Your task to perform on an android device: turn on priority inbox in the gmail app Image 0: 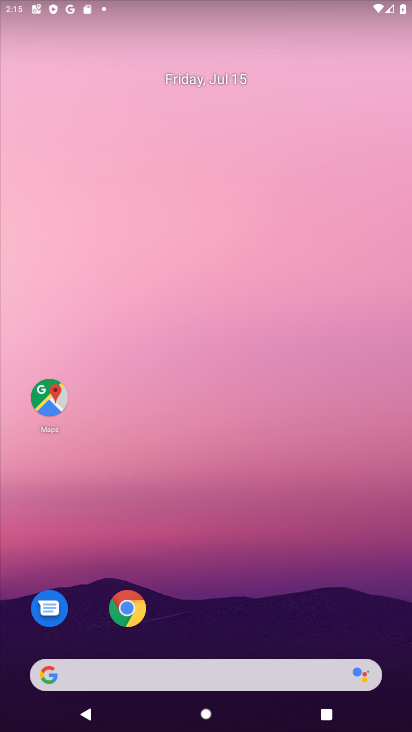
Step 0: click (396, 362)
Your task to perform on an android device: turn on priority inbox in the gmail app Image 1: 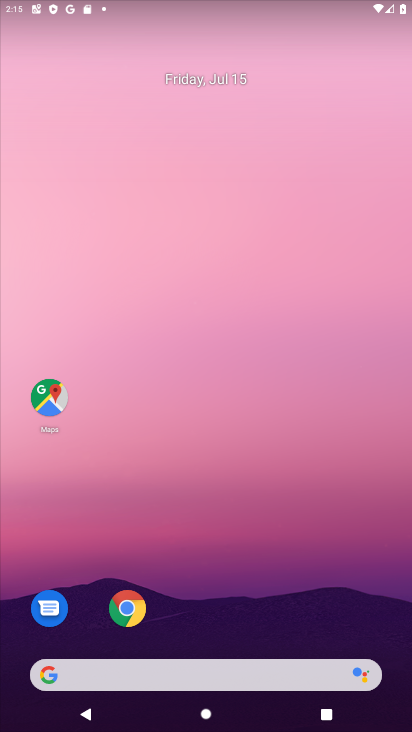
Step 1: drag from (235, 582) to (259, 66)
Your task to perform on an android device: turn on priority inbox in the gmail app Image 2: 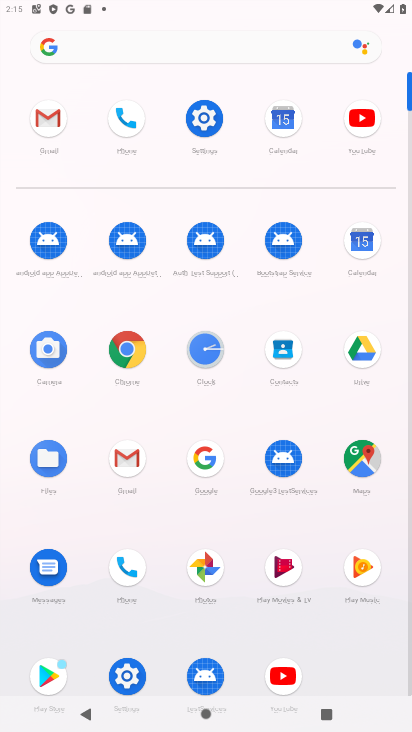
Step 2: click (30, 105)
Your task to perform on an android device: turn on priority inbox in the gmail app Image 3: 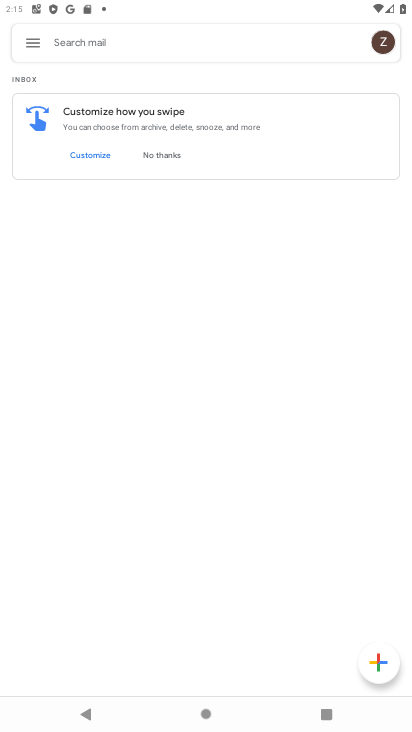
Step 3: click (37, 49)
Your task to perform on an android device: turn on priority inbox in the gmail app Image 4: 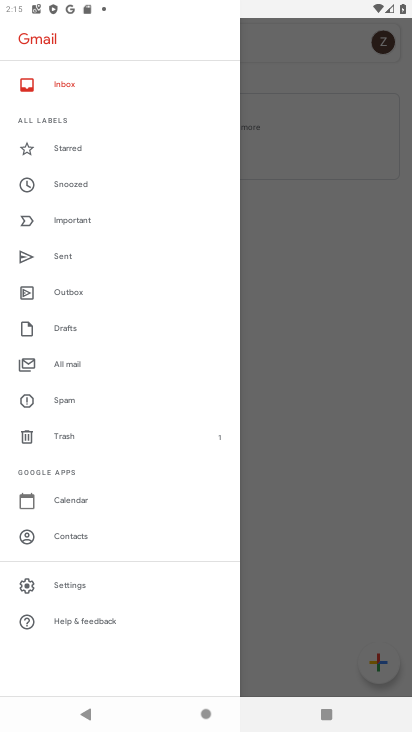
Step 4: click (96, 578)
Your task to perform on an android device: turn on priority inbox in the gmail app Image 5: 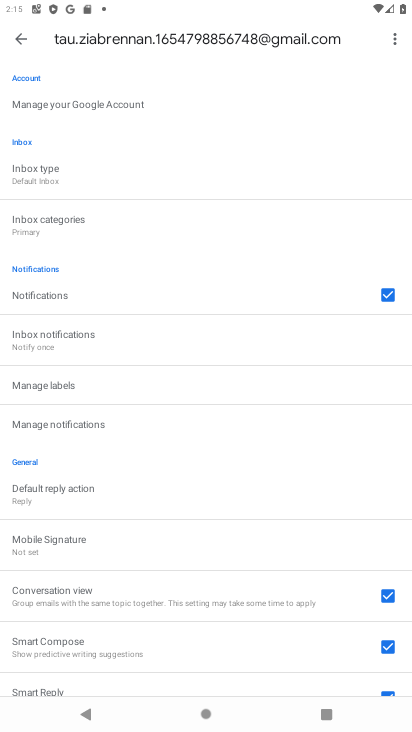
Step 5: click (71, 171)
Your task to perform on an android device: turn on priority inbox in the gmail app Image 6: 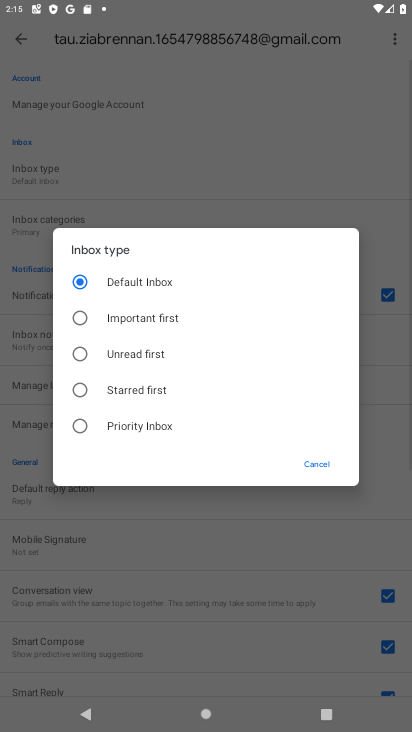
Step 6: click (148, 423)
Your task to perform on an android device: turn on priority inbox in the gmail app Image 7: 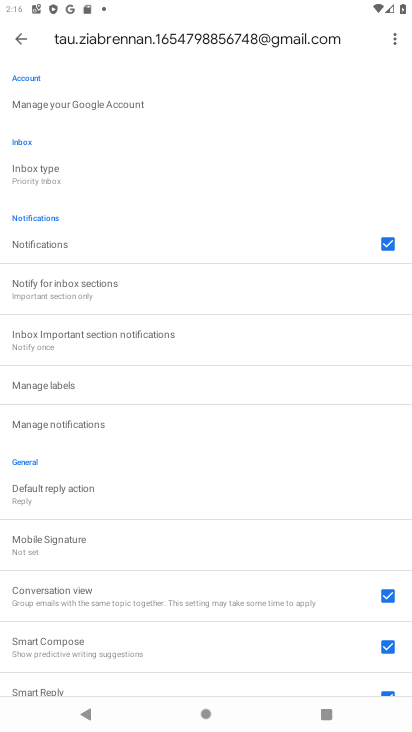
Step 7: task complete